Your task to perform on an android device: change the clock style Image 0: 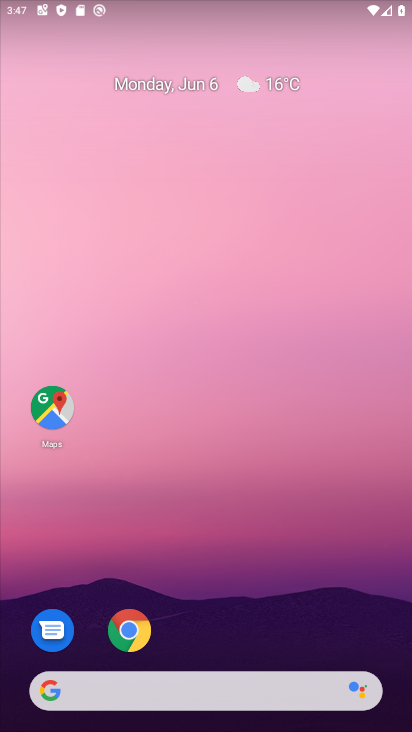
Step 0: drag from (254, 577) to (323, 42)
Your task to perform on an android device: change the clock style Image 1: 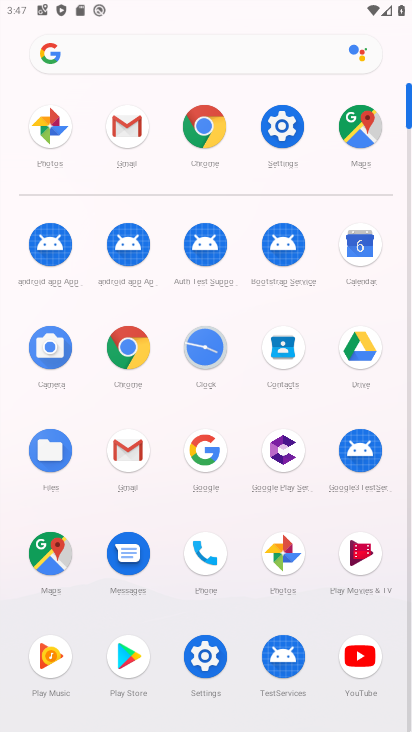
Step 1: click (214, 354)
Your task to perform on an android device: change the clock style Image 2: 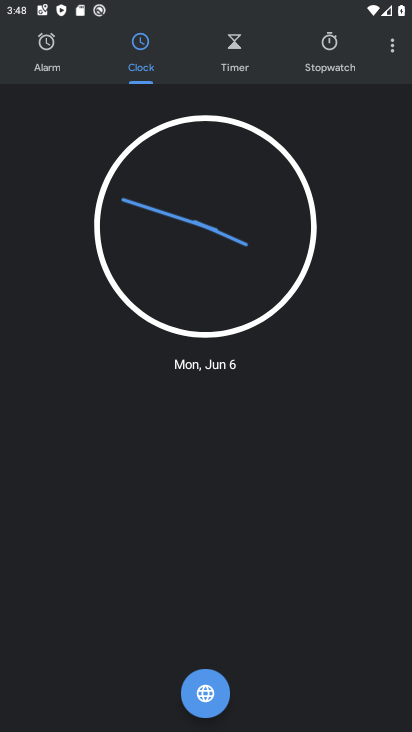
Step 2: click (389, 51)
Your task to perform on an android device: change the clock style Image 3: 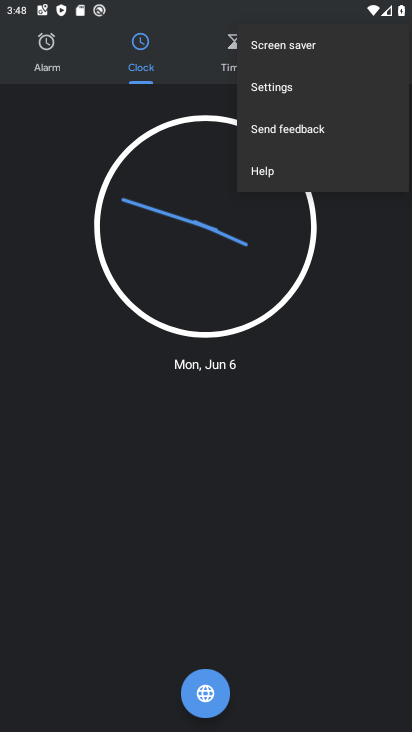
Step 3: click (261, 89)
Your task to perform on an android device: change the clock style Image 4: 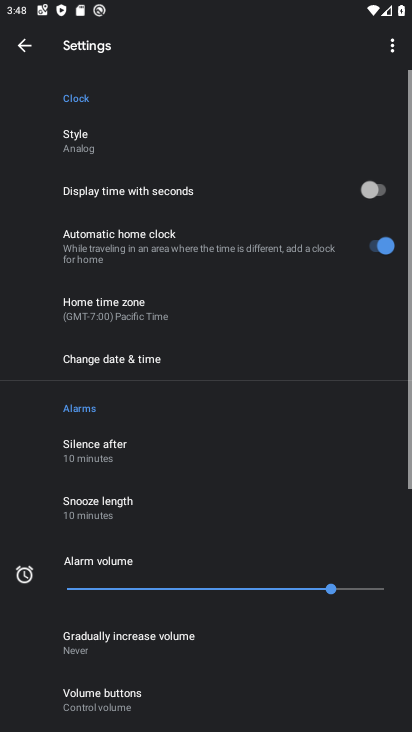
Step 4: click (139, 139)
Your task to perform on an android device: change the clock style Image 5: 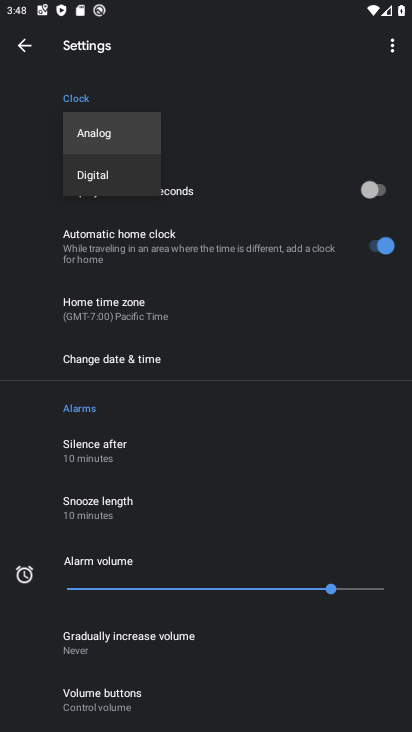
Step 5: click (287, 73)
Your task to perform on an android device: change the clock style Image 6: 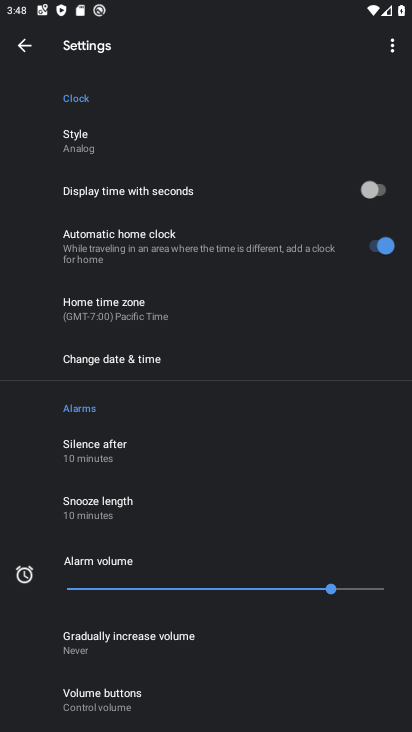
Step 6: click (92, 142)
Your task to perform on an android device: change the clock style Image 7: 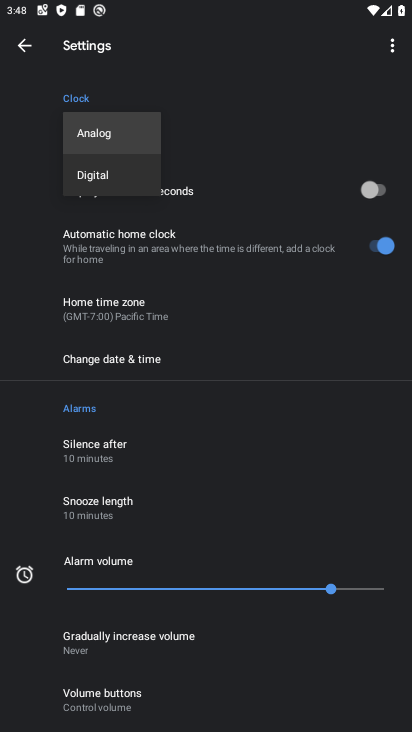
Step 7: click (92, 168)
Your task to perform on an android device: change the clock style Image 8: 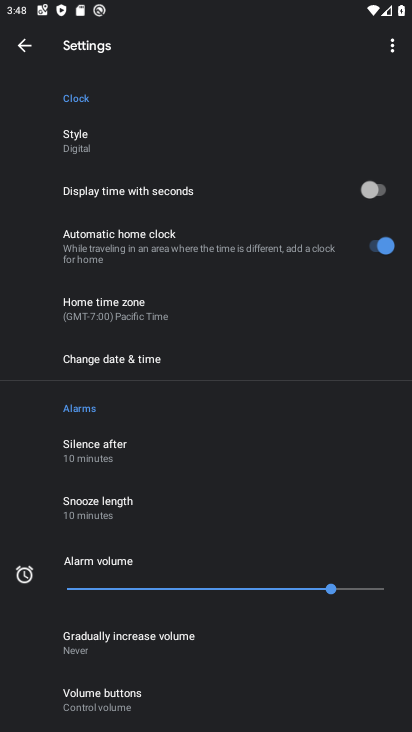
Step 8: task complete